Your task to perform on an android device: change the upload size in google photos Image 0: 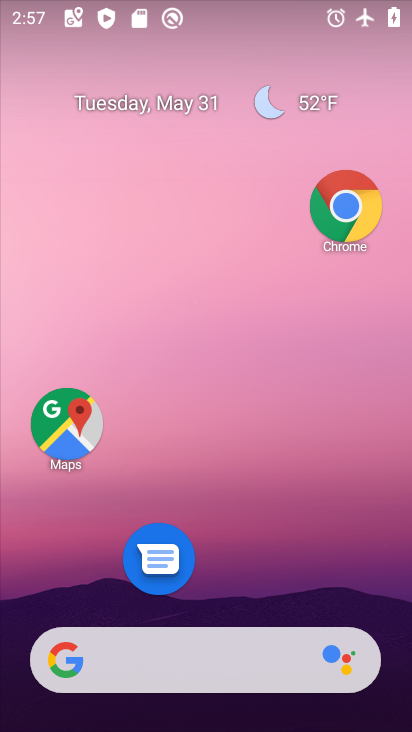
Step 0: drag from (236, 563) to (216, 151)
Your task to perform on an android device: change the upload size in google photos Image 1: 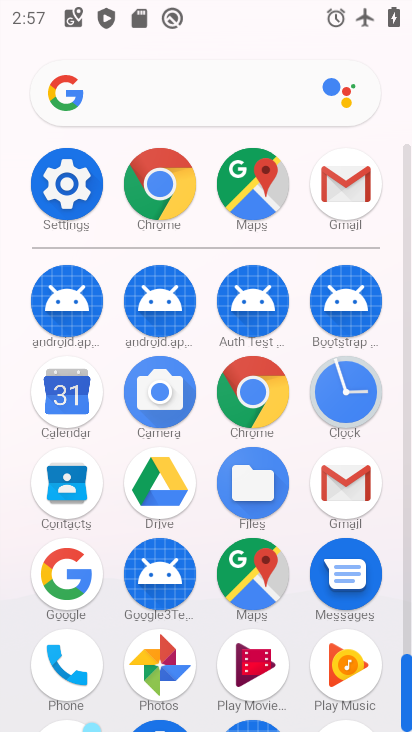
Step 1: click (181, 668)
Your task to perform on an android device: change the upload size in google photos Image 2: 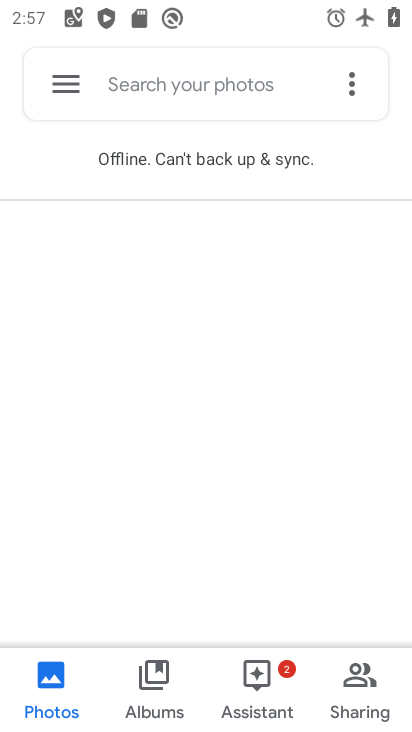
Step 2: click (359, 96)
Your task to perform on an android device: change the upload size in google photos Image 3: 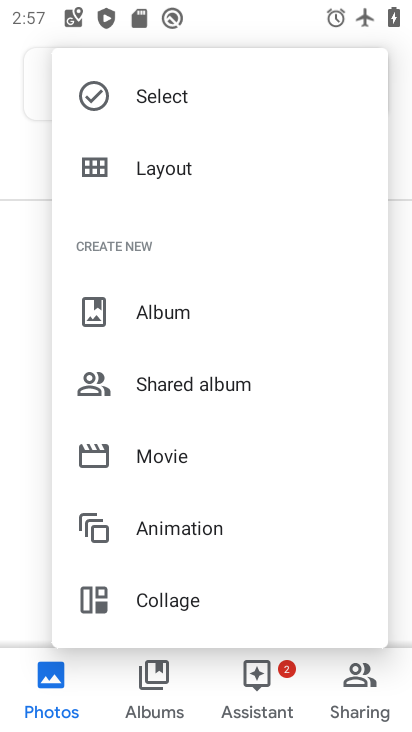
Step 3: click (225, 666)
Your task to perform on an android device: change the upload size in google photos Image 4: 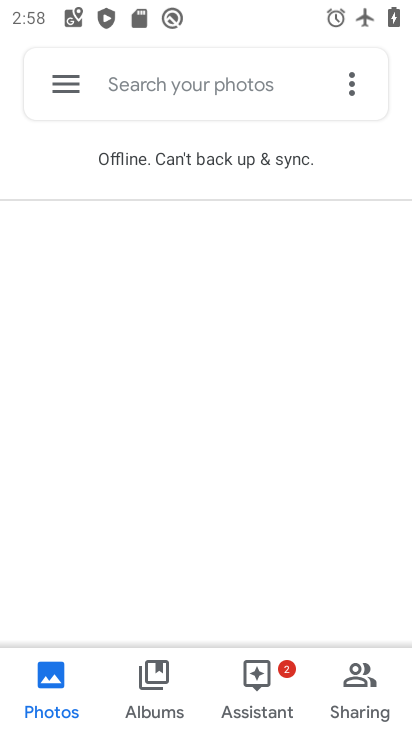
Step 4: click (65, 95)
Your task to perform on an android device: change the upload size in google photos Image 5: 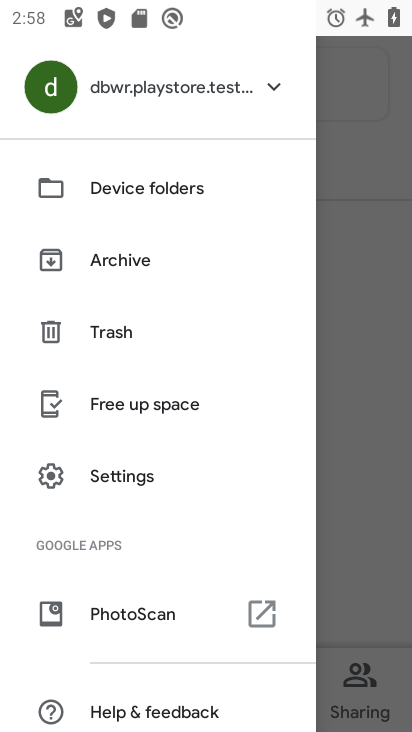
Step 5: click (168, 511)
Your task to perform on an android device: change the upload size in google photos Image 6: 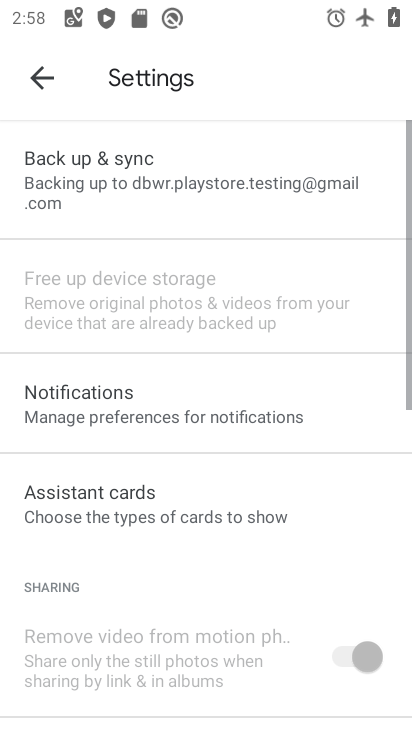
Step 6: click (191, 194)
Your task to perform on an android device: change the upload size in google photos Image 7: 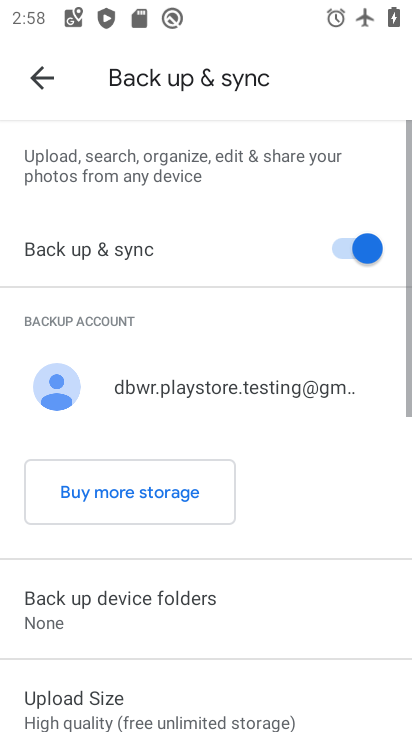
Step 7: drag from (207, 516) to (204, 141)
Your task to perform on an android device: change the upload size in google photos Image 8: 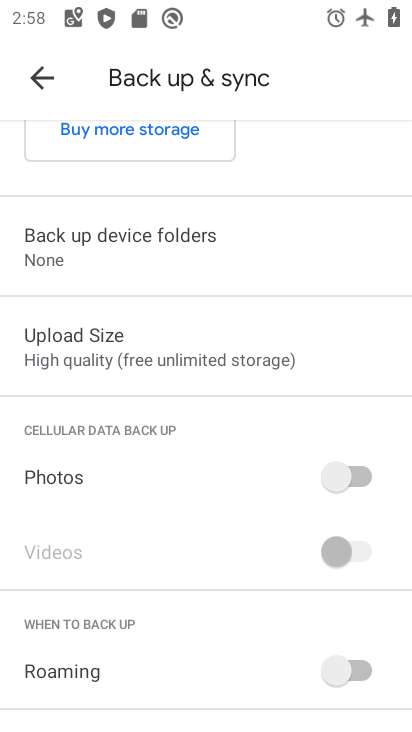
Step 8: click (174, 363)
Your task to perform on an android device: change the upload size in google photos Image 9: 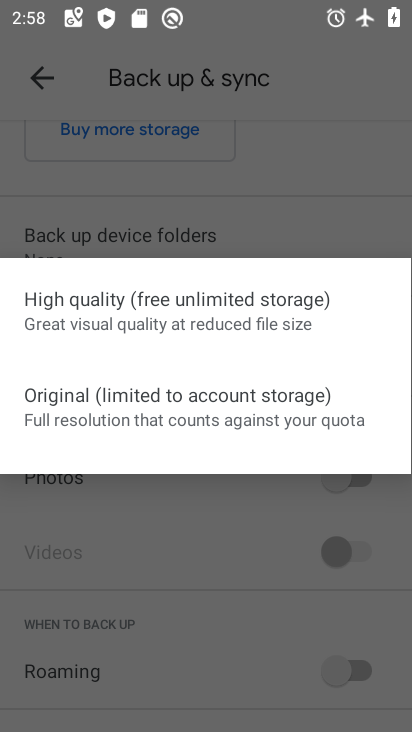
Step 9: click (186, 413)
Your task to perform on an android device: change the upload size in google photos Image 10: 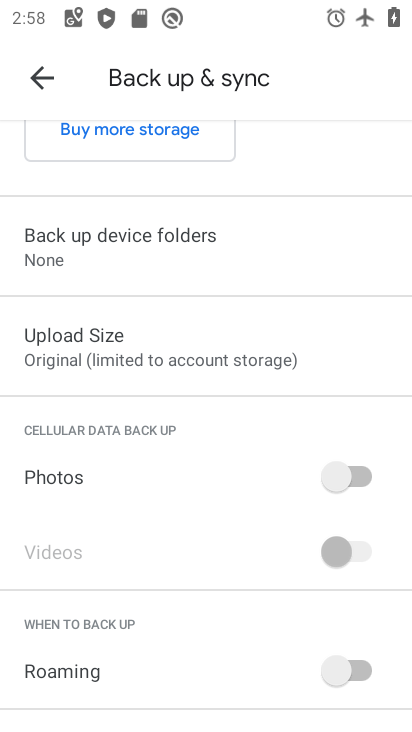
Step 10: task complete